Your task to perform on an android device: turn off translation in the chrome app Image 0: 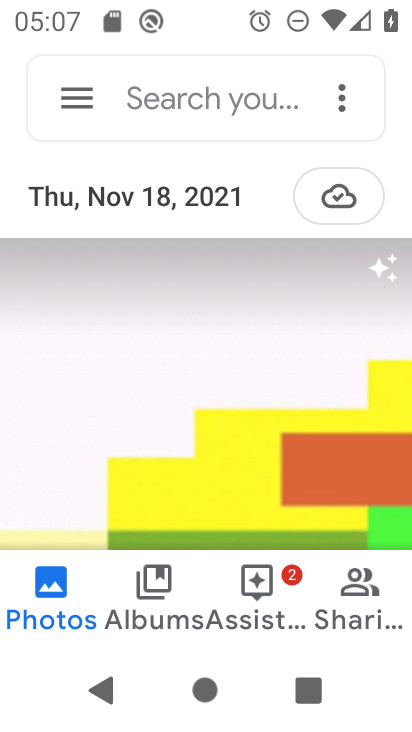
Step 0: press home button
Your task to perform on an android device: turn off translation in the chrome app Image 1: 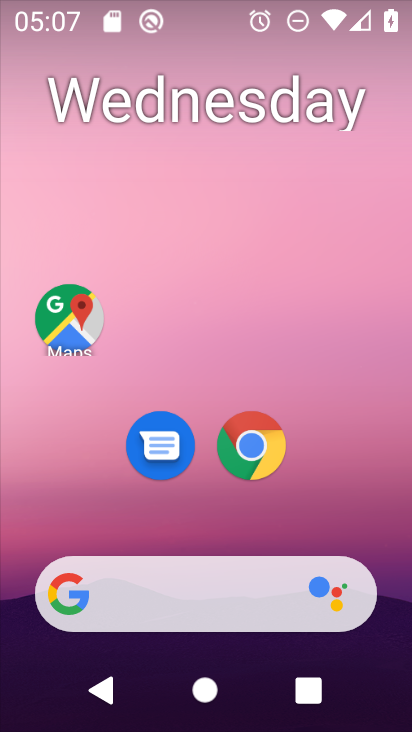
Step 1: click (242, 460)
Your task to perform on an android device: turn off translation in the chrome app Image 2: 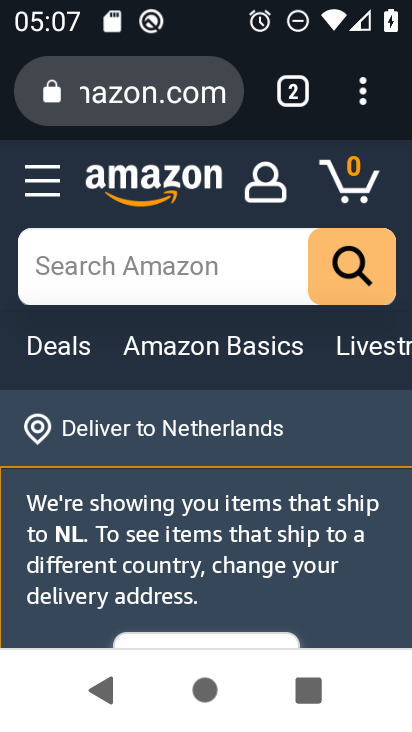
Step 2: click (381, 91)
Your task to perform on an android device: turn off translation in the chrome app Image 3: 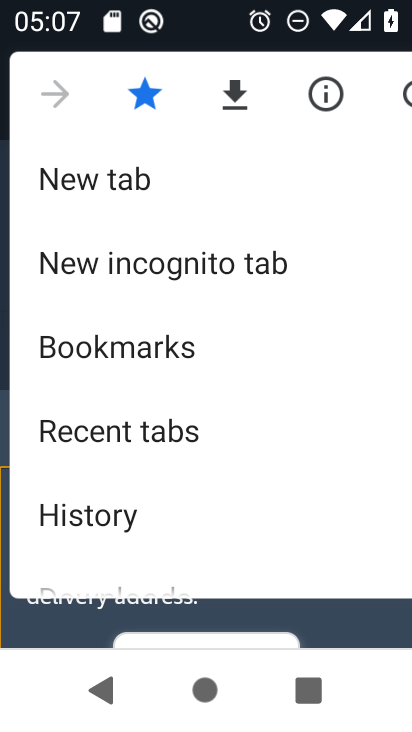
Step 3: drag from (134, 549) to (232, 122)
Your task to perform on an android device: turn off translation in the chrome app Image 4: 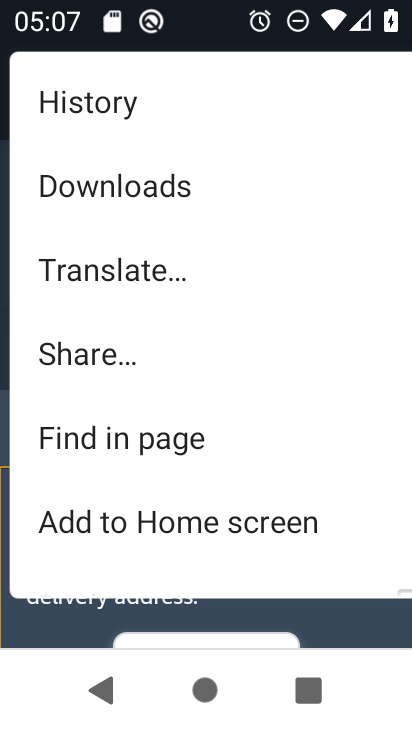
Step 4: drag from (120, 459) to (142, 215)
Your task to perform on an android device: turn off translation in the chrome app Image 5: 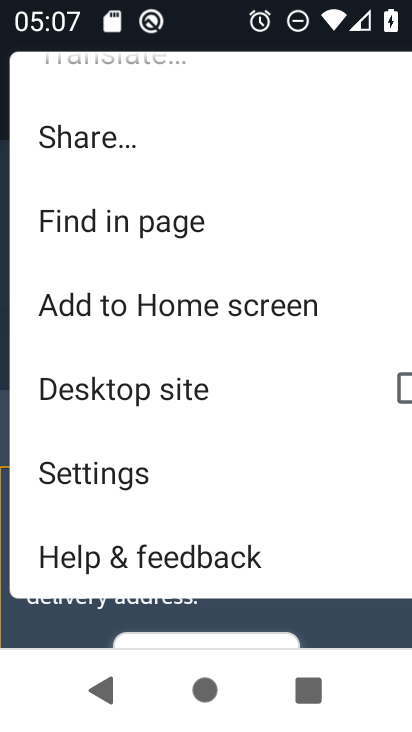
Step 5: click (124, 485)
Your task to perform on an android device: turn off translation in the chrome app Image 6: 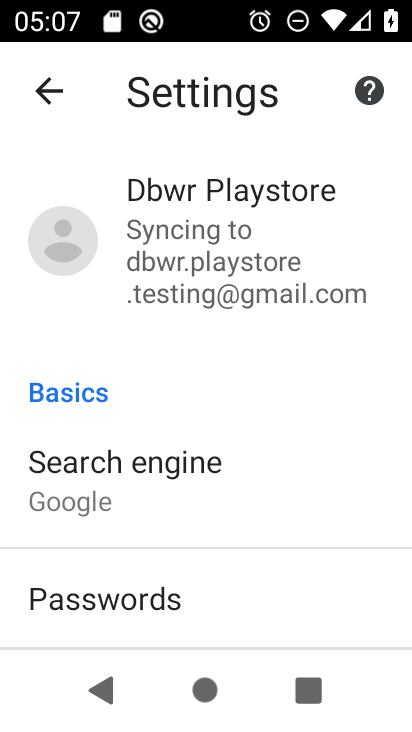
Step 6: drag from (135, 628) to (176, 270)
Your task to perform on an android device: turn off translation in the chrome app Image 7: 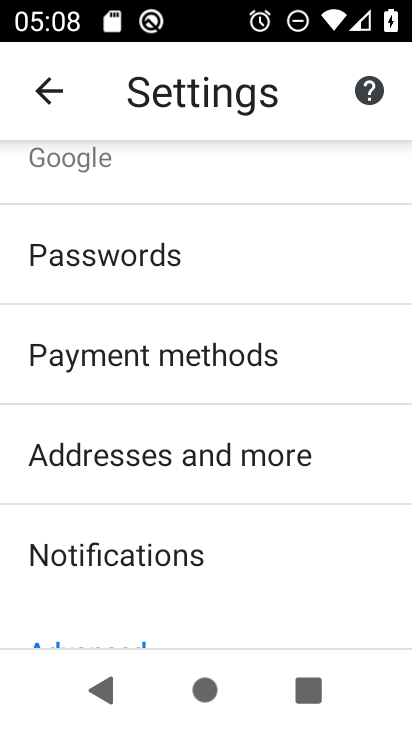
Step 7: drag from (170, 591) to (228, 181)
Your task to perform on an android device: turn off translation in the chrome app Image 8: 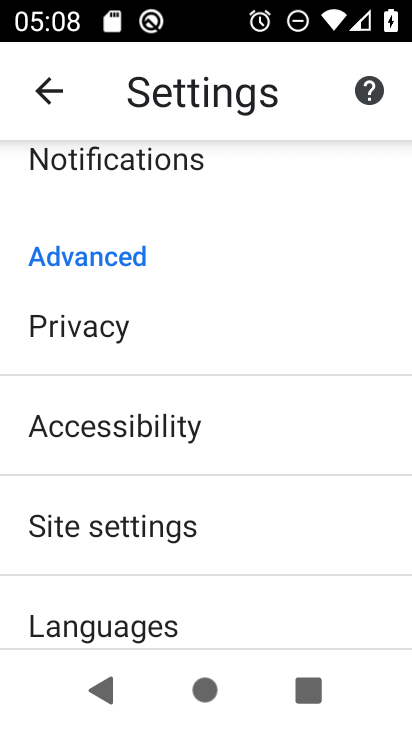
Step 8: click (131, 618)
Your task to perform on an android device: turn off translation in the chrome app Image 9: 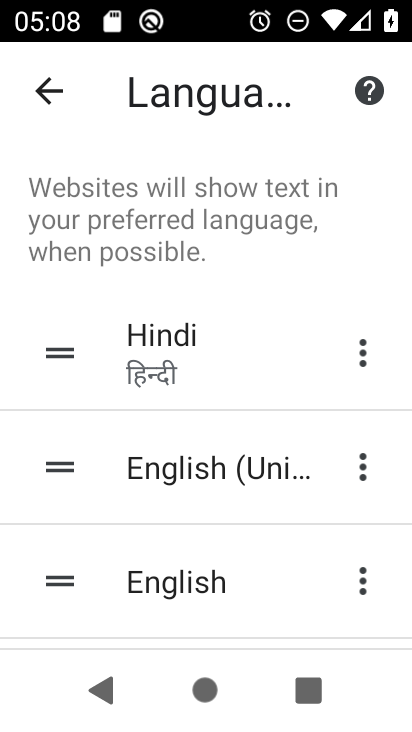
Step 9: drag from (294, 573) to (279, 223)
Your task to perform on an android device: turn off translation in the chrome app Image 10: 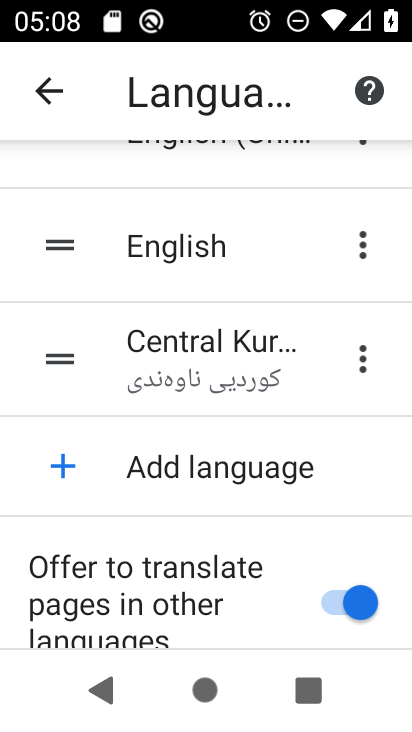
Step 10: click (361, 614)
Your task to perform on an android device: turn off translation in the chrome app Image 11: 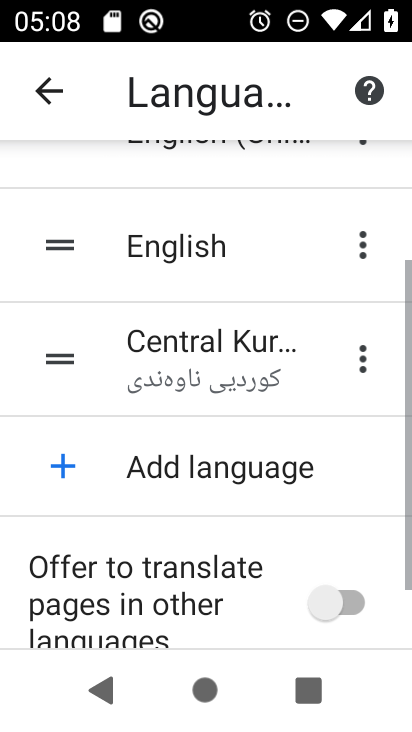
Step 11: task complete